Your task to perform on an android device: clear history in the chrome app Image 0: 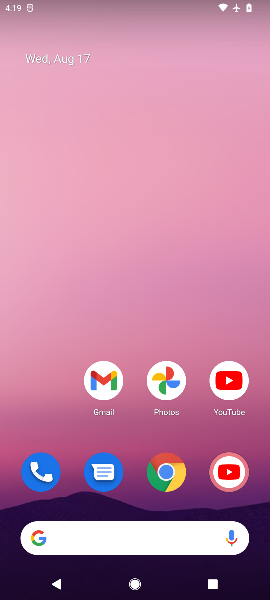
Step 0: click (168, 480)
Your task to perform on an android device: clear history in the chrome app Image 1: 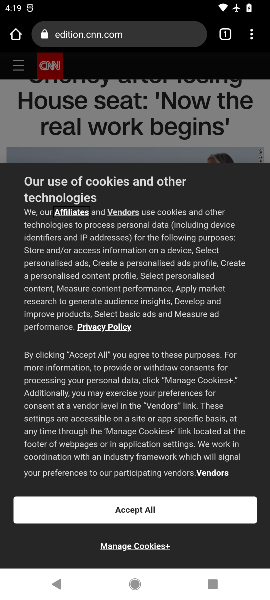
Step 1: click (250, 36)
Your task to perform on an android device: clear history in the chrome app Image 2: 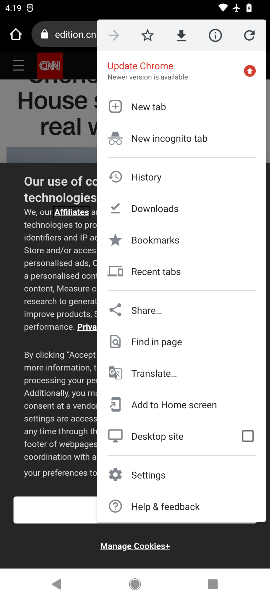
Step 2: click (144, 179)
Your task to perform on an android device: clear history in the chrome app Image 3: 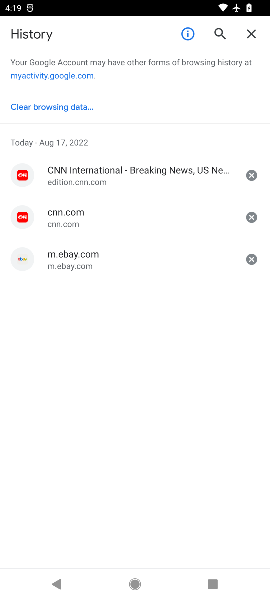
Step 3: click (58, 107)
Your task to perform on an android device: clear history in the chrome app Image 4: 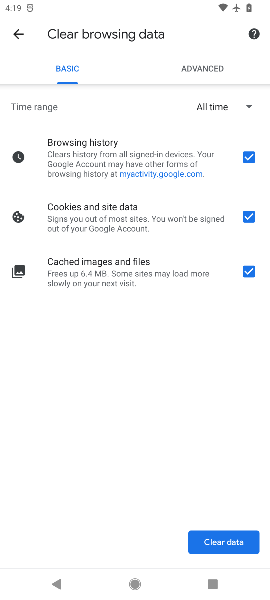
Step 4: click (237, 544)
Your task to perform on an android device: clear history in the chrome app Image 5: 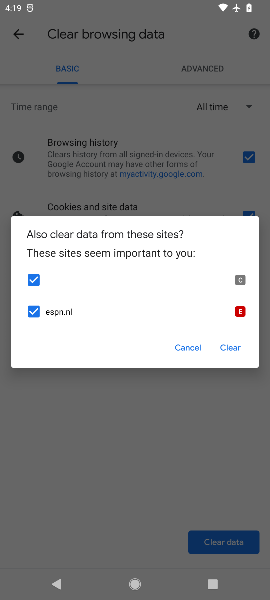
Step 5: click (235, 351)
Your task to perform on an android device: clear history in the chrome app Image 6: 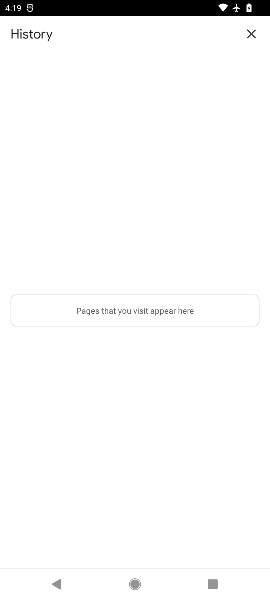
Step 6: task complete